Your task to perform on an android device: Go to display settings Image 0: 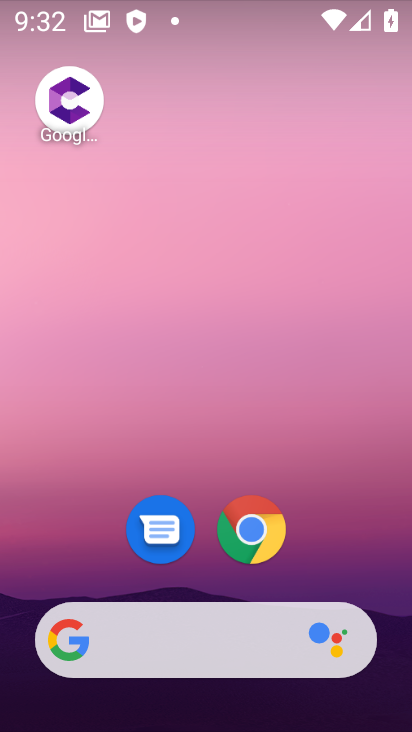
Step 0: drag from (212, 200) to (157, 54)
Your task to perform on an android device: Go to display settings Image 1: 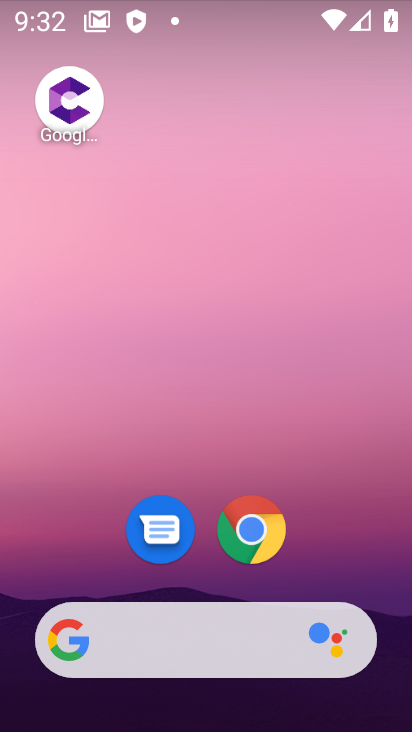
Step 1: drag from (363, 560) to (162, 39)
Your task to perform on an android device: Go to display settings Image 2: 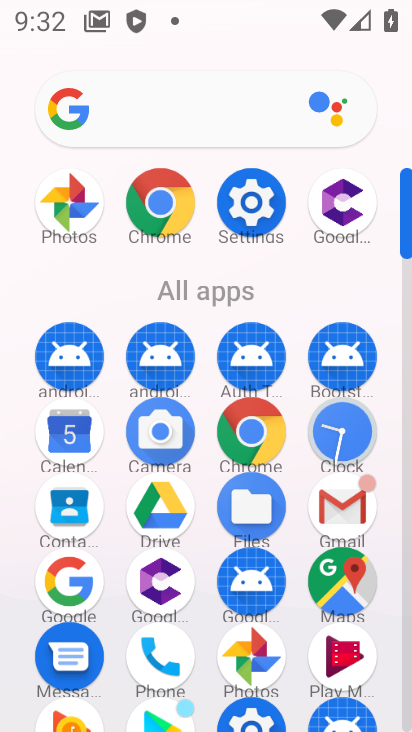
Step 2: click (247, 220)
Your task to perform on an android device: Go to display settings Image 3: 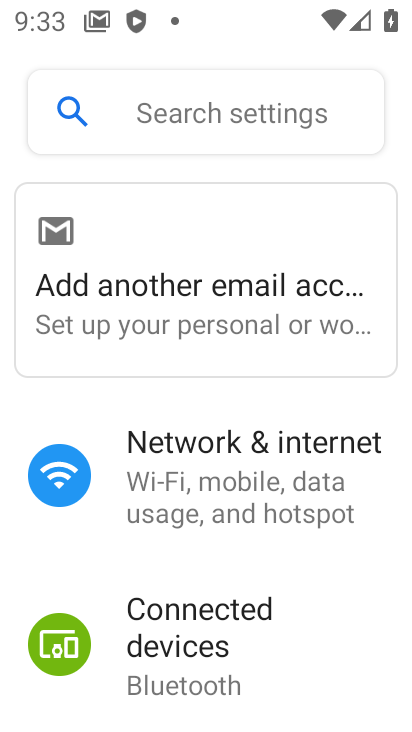
Step 3: drag from (195, 593) to (148, 181)
Your task to perform on an android device: Go to display settings Image 4: 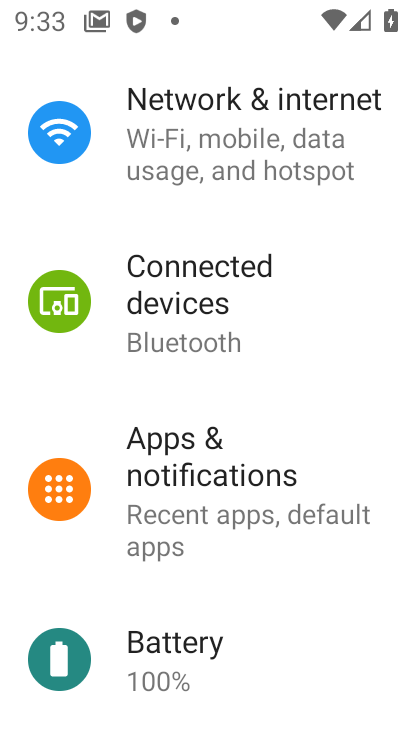
Step 4: drag from (176, 628) to (107, 81)
Your task to perform on an android device: Go to display settings Image 5: 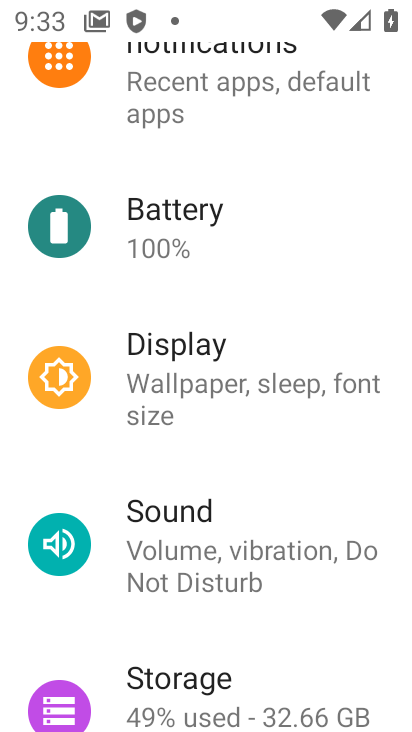
Step 5: click (178, 385)
Your task to perform on an android device: Go to display settings Image 6: 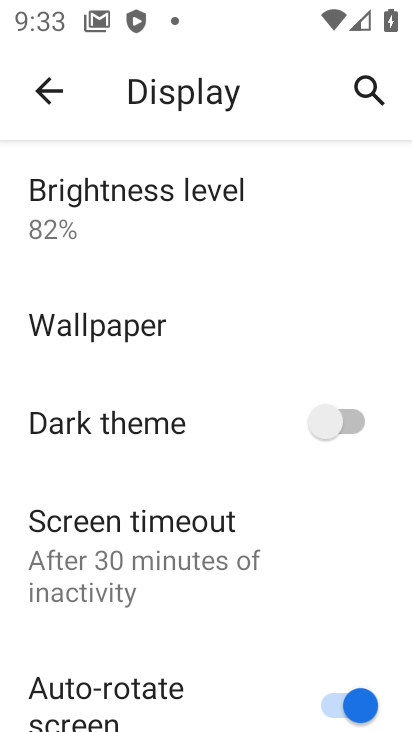
Step 6: task complete